Your task to perform on an android device: Go to Maps Image 0: 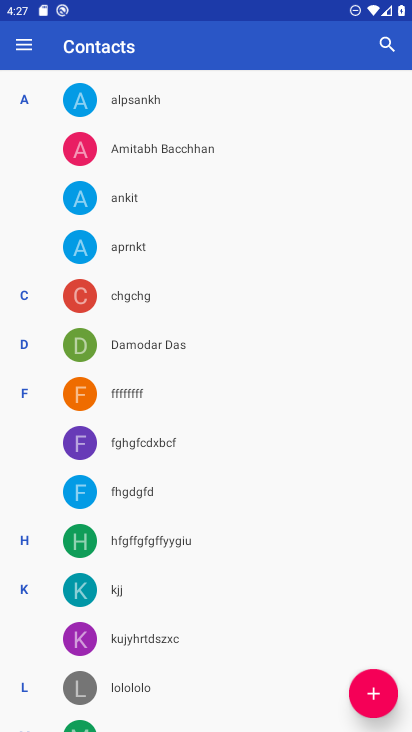
Step 0: press home button
Your task to perform on an android device: Go to Maps Image 1: 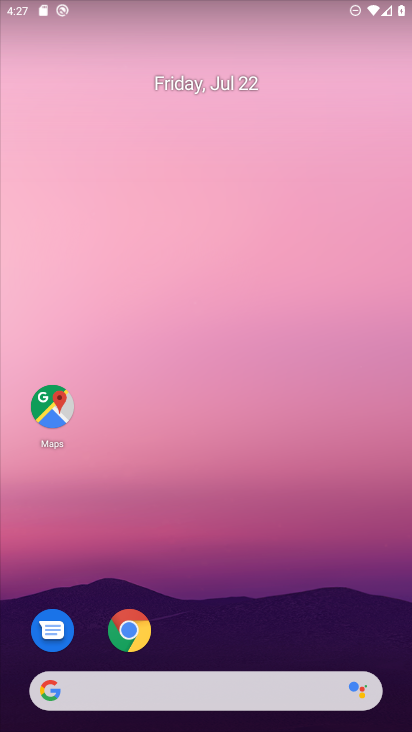
Step 1: click (63, 419)
Your task to perform on an android device: Go to Maps Image 2: 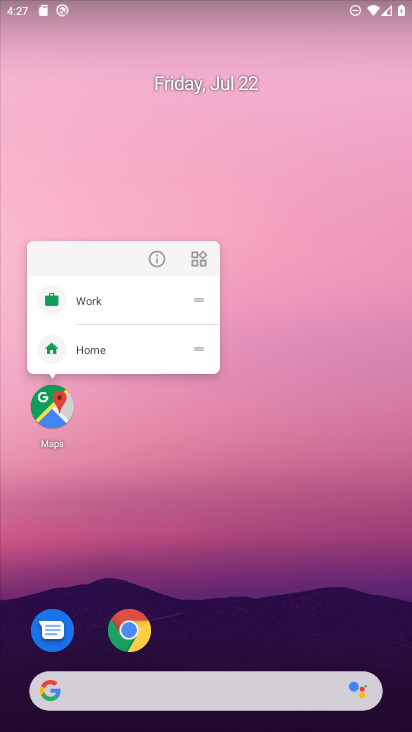
Step 2: click (57, 409)
Your task to perform on an android device: Go to Maps Image 3: 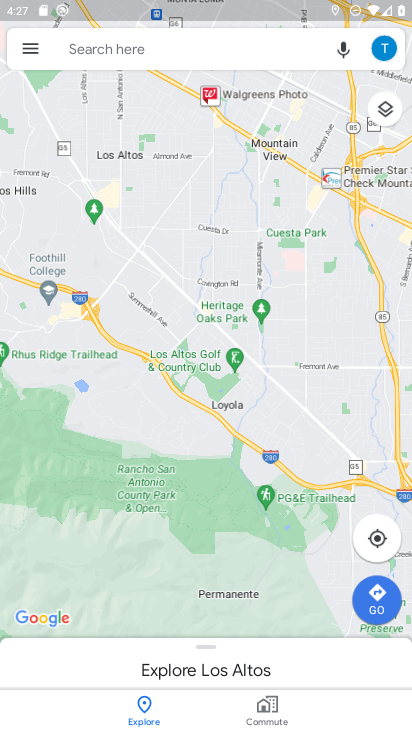
Step 3: task complete